Your task to perform on an android device: open wifi settings Image 0: 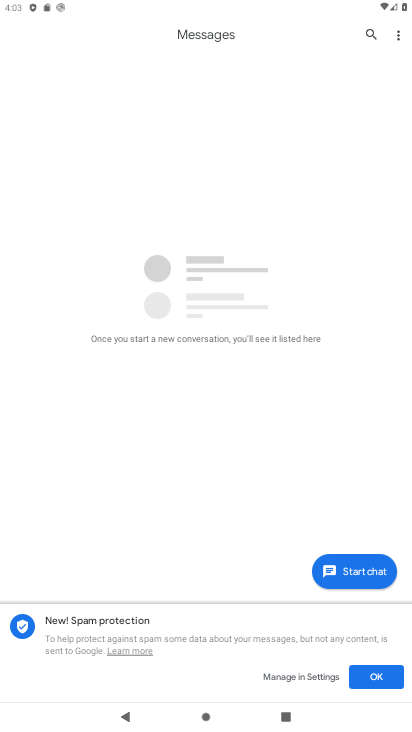
Step 0: press home button
Your task to perform on an android device: open wifi settings Image 1: 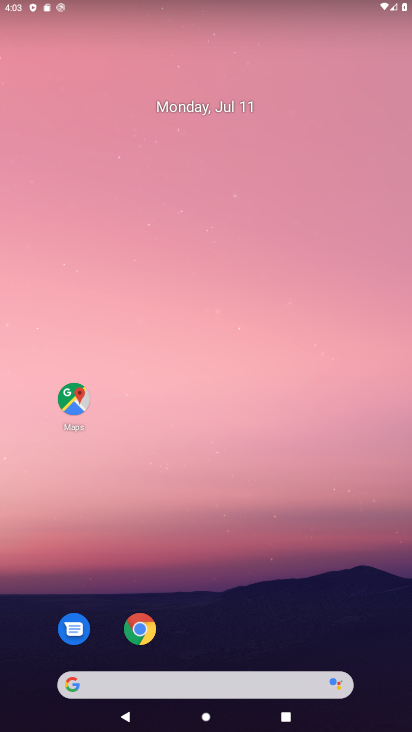
Step 1: drag from (265, 654) to (286, 204)
Your task to perform on an android device: open wifi settings Image 2: 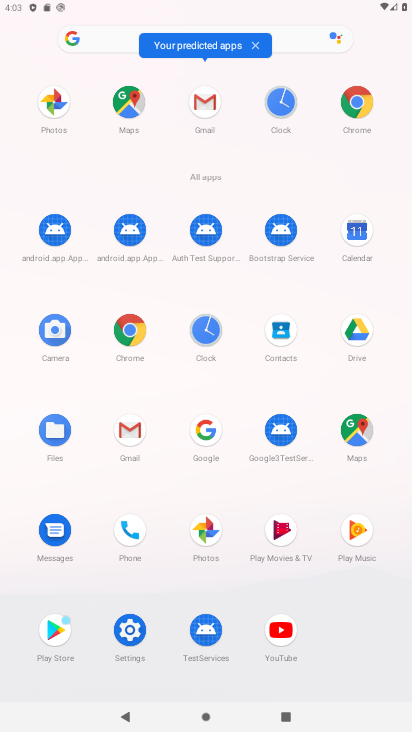
Step 2: drag from (128, 633) to (286, 376)
Your task to perform on an android device: open wifi settings Image 3: 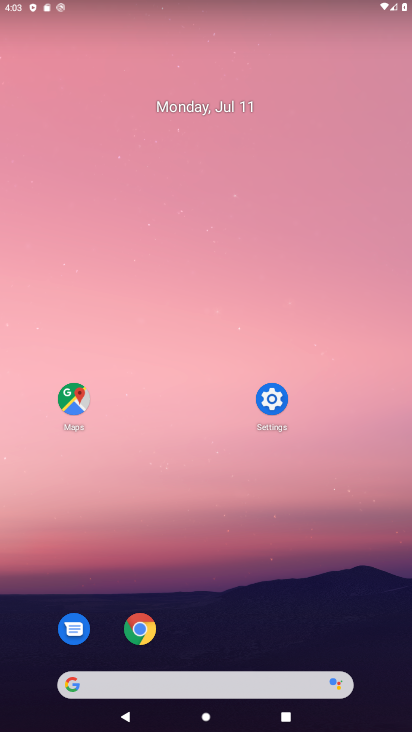
Step 3: click (270, 398)
Your task to perform on an android device: open wifi settings Image 4: 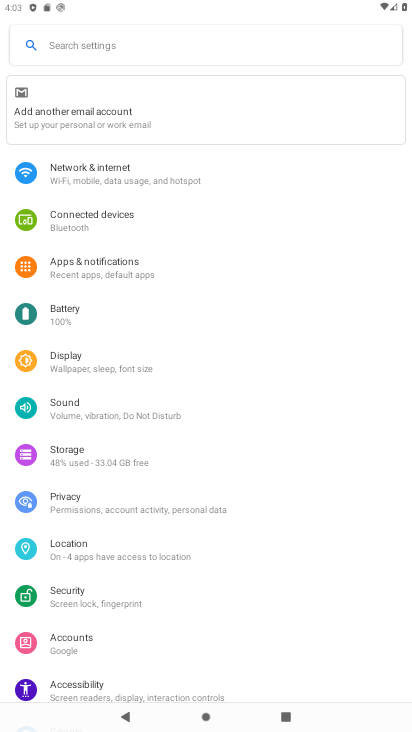
Step 4: click (238, 161)
Your task to perform on an android device: open wifi settings Image 5: 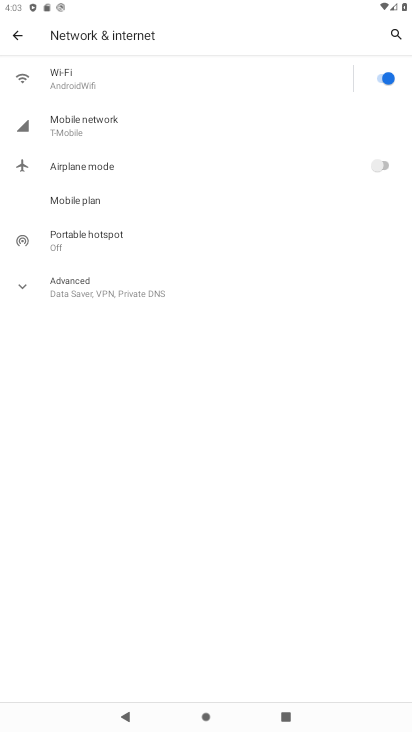
Step 5: click (210, 74)
Your task to perform on an android device: open wifi settings Image 6: 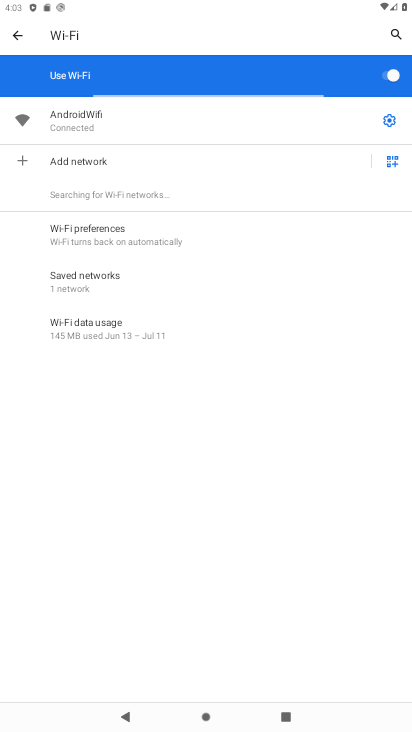
Step 6: click (391, 115)
Your task to perform on an android device: open wifi settings Image 7: 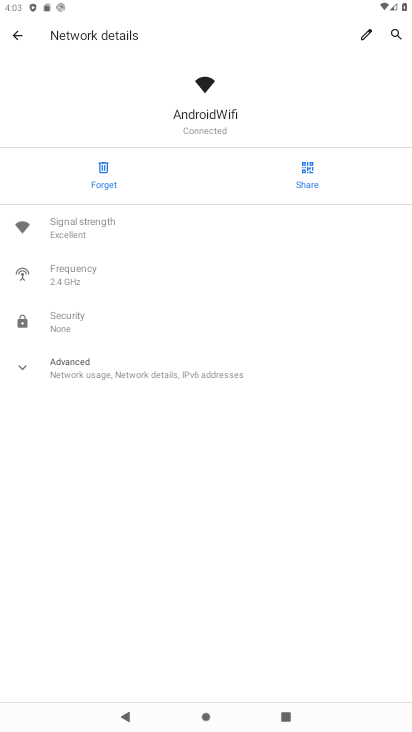
Step 7: task complete